Your task to perform on an android device: turn on javascript in the chrome app Image 0: 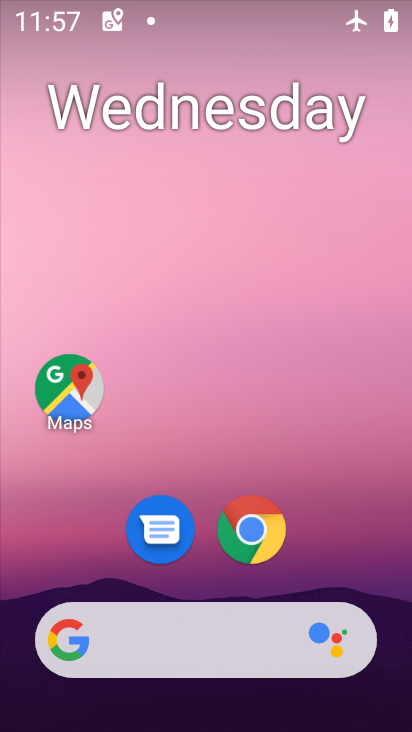
Step 0: click (250, 531)
Your task to perform on an android device: turn on javascript in the chrome app Image 1: 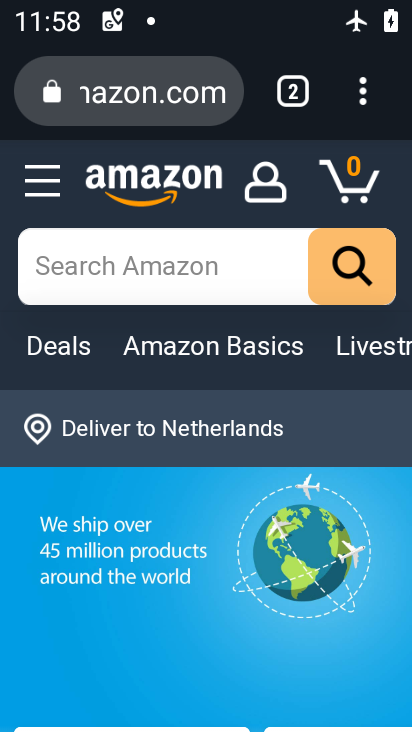
Step 1: click (363, 101)
Your task to perform on an android device: turn on javascript in the chrome app Image 2: 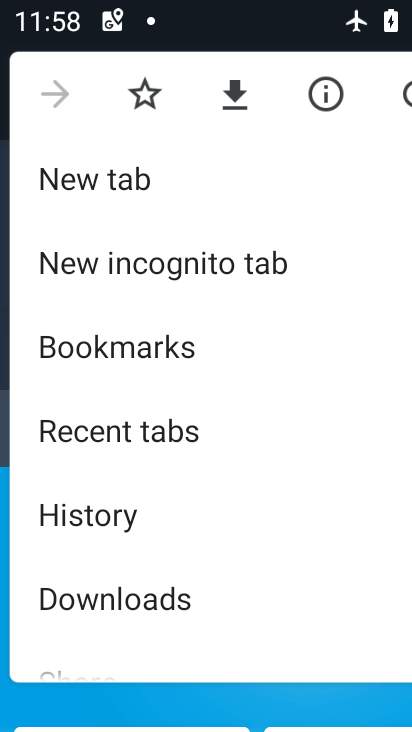
Step 2: drag from (250, 575) to (243, 233)
Your task to perform on an android device: turn on javascript in the chrome app Image 3: 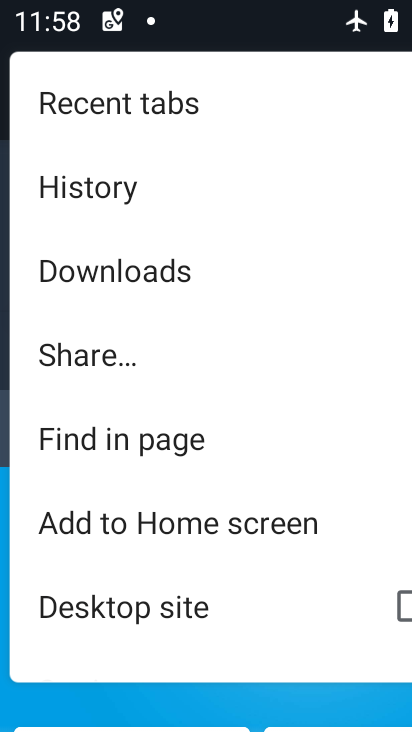
Step 3: drag from (257, 586) to (304, 194)
Your task to perform on an android device: turn on javascript in the chrome app Image 4: 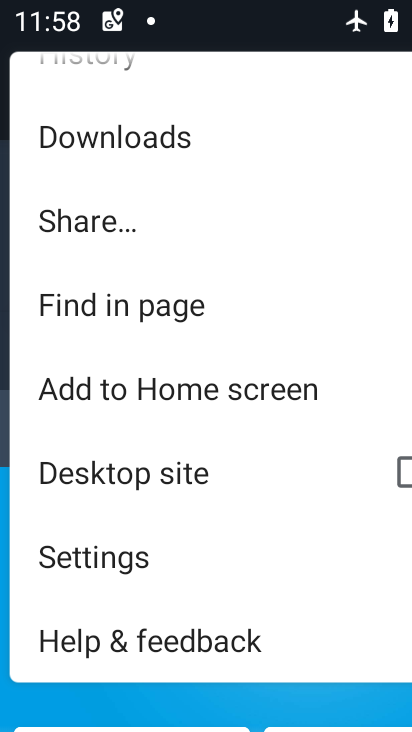
Step 4: click (105, 552)
Your task to perform on an android device: turn on javascript in the chrome app Image 5: 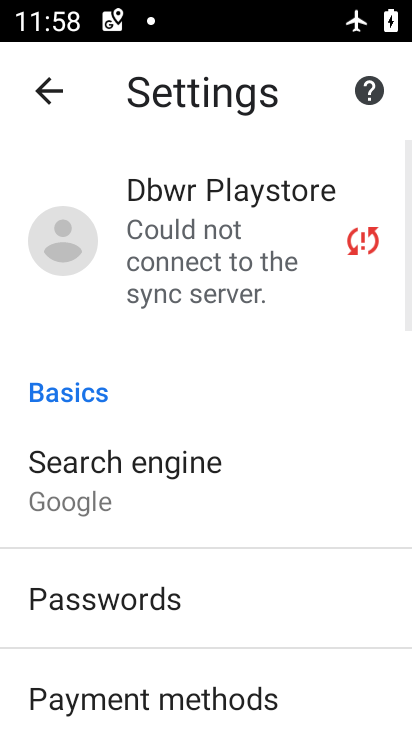
Step 5: drag from (341, 650) to (243, 280)
Your task to perform on an android device: turn on javascript in the chrome app Image 6: 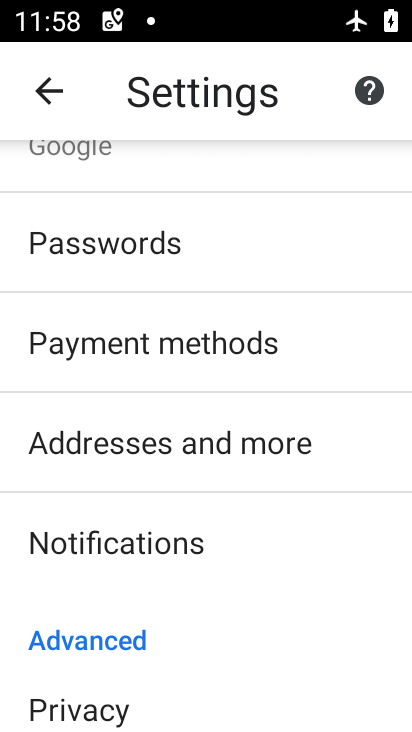
Step 6: drag from (273, 676) to (293, 291)
Your task to perform on an android device: turn on javascript in the chrome app Image 7: 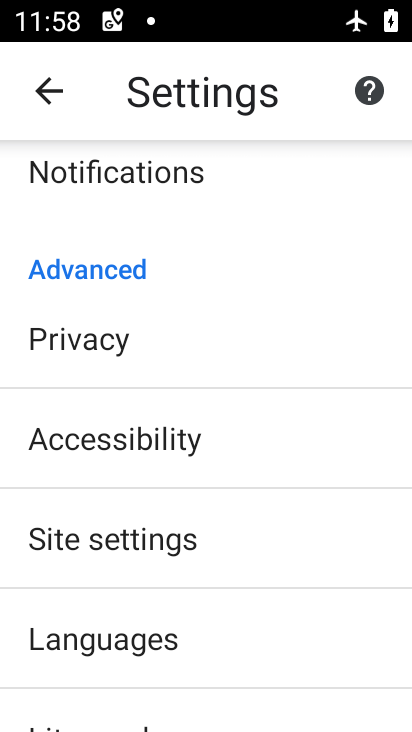
Step 7: click (94, 546)
Your task to perform on an android device: turn on javascript in the chrome app Image 8: 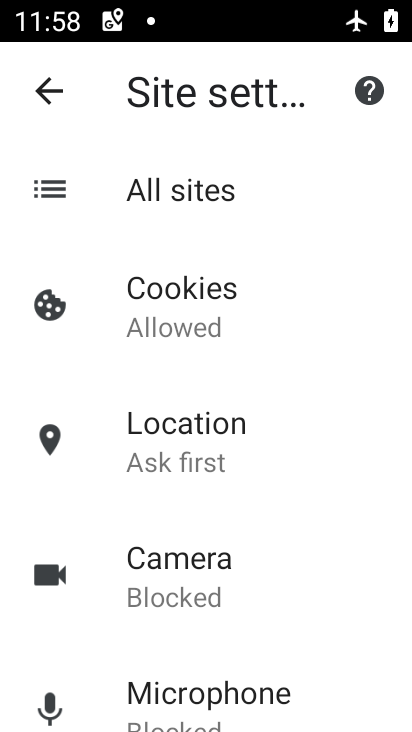
Step 8: drag from (322, 653) to (276, 197)
Your task to perform on an android device: turn on javascript in the chrome app Image 9: 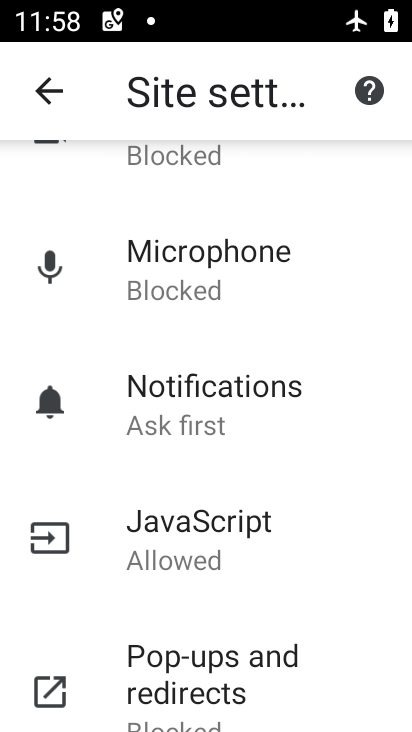
Step 9: click (176, 537)
Your task to perform on an android device: turn on javascript in the chrome app Image 10: 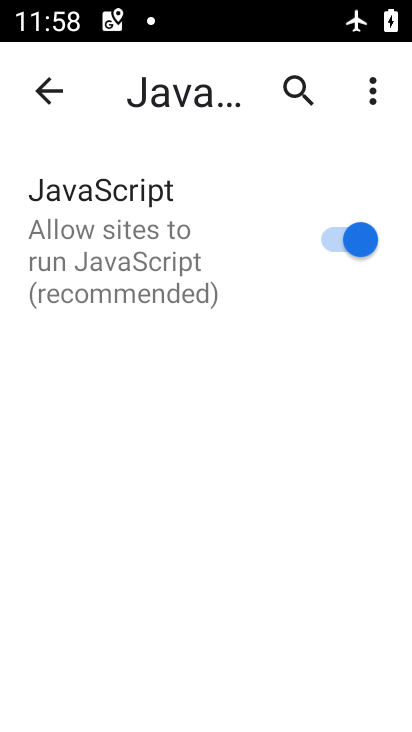
Step 10: task complete